Your task to perform on an android device: turn on showing notifications on the lock screen Image 0: 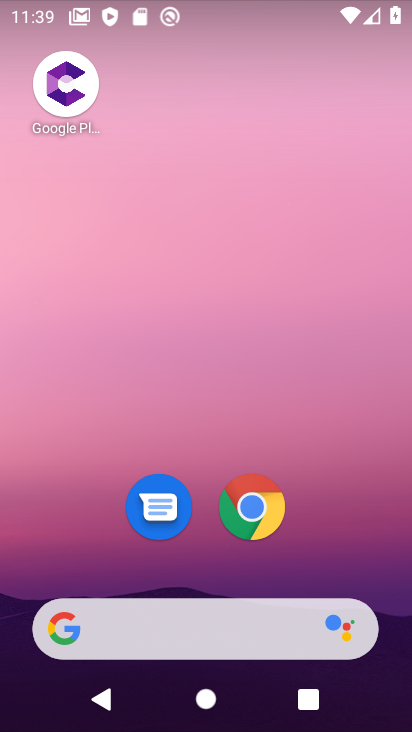
Step 0: drag from (323, 551) to (289, 25)
Your task to perform on an android device: turn on showing notifications on the lock screen Image 1: 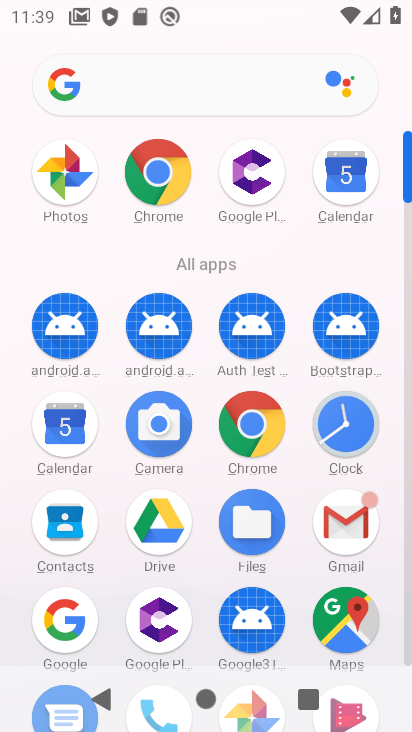
Step 1: drag from (200, 574) to (195, 240)
Your task to perform on an android device: turn on showing notifications on the lock screen Image 2: 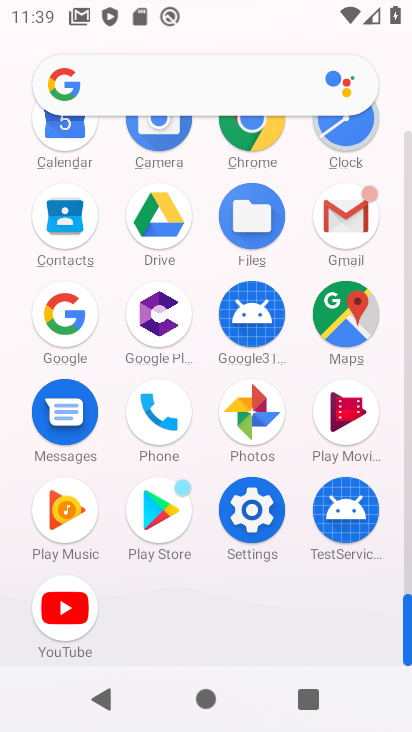
Step 2: click (249, 512)
Your task to perform on an android device: turn on showing notifications on the lock screen Image 3: 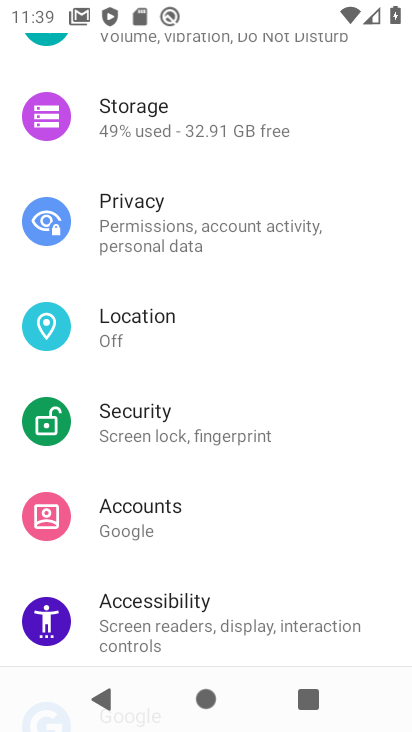
Step 3: drag from (228, 305) to (292, 708)
Your task to perform on an android device: turn on showing notifications on the lock screen Image 4: 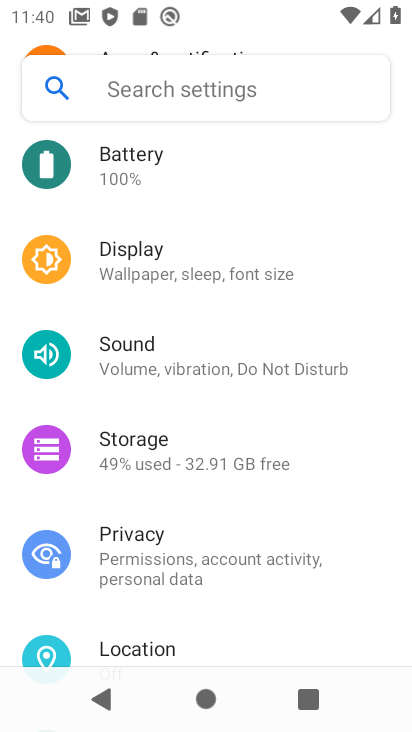
Step 4: drag from (174, 191) to (245, 724)
Your task to perform on an android device: turn on showing notifications on the lock screen Image 5: 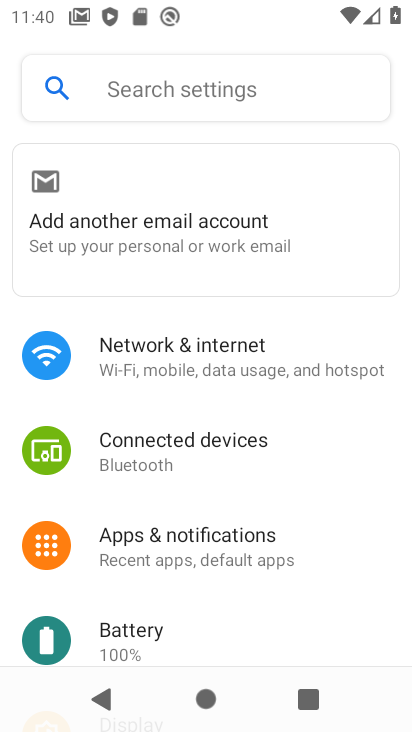
Step 5: click (195, 533)
Your task to perform on an android device: turn on showing notifications on the lock screen Image 6: 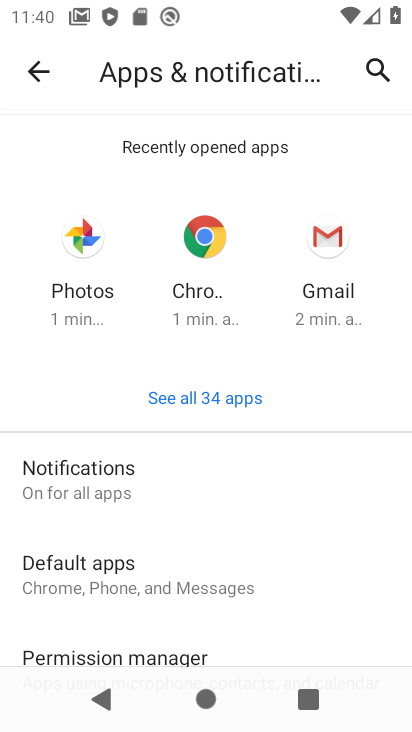
Step 6: drag from (208, 538) to (201, 321)
Your task to perform on an android device: turn on showing notifications on the lock screen Image 7: 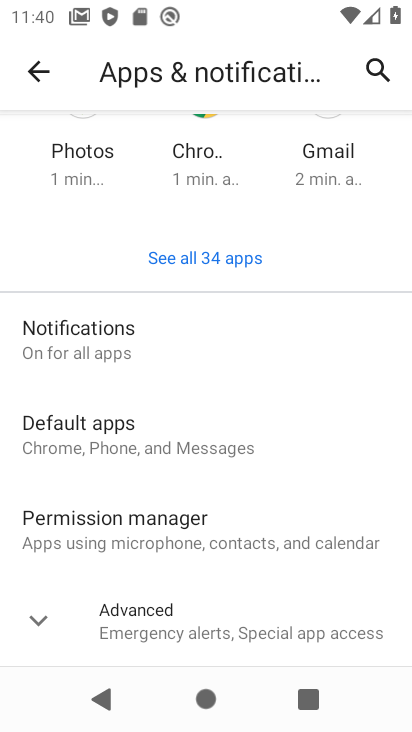
Step 7: click (66, 326)
Your task to perform on an android device: turn on showing notifications on the lock screen Image 8: 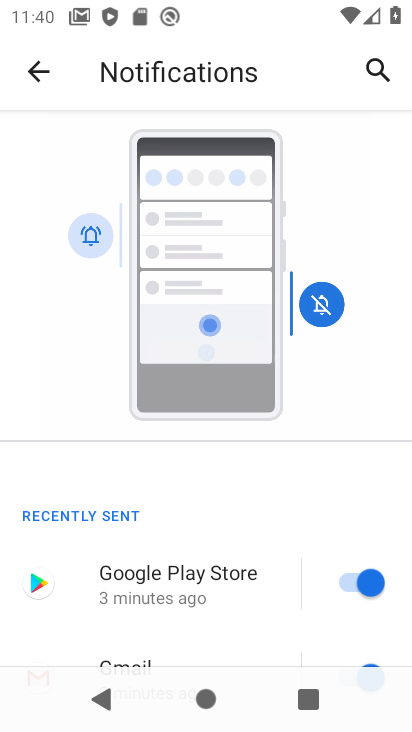
Step 8: drag from (241, 509) to (216, 159)
Your task to perform on an android device: turn on showing notifications on the lock screen Image 9: 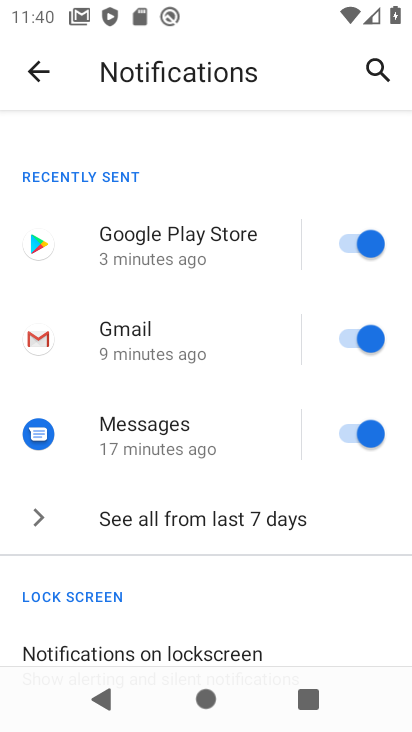
Step 9: drag from (205, 602) to (184, 236)
Your task to perform on an android device: turn on showing notifications on the lock screen Image 10: 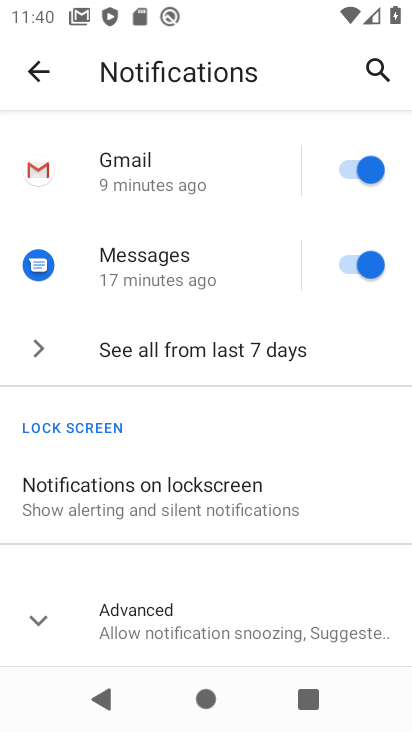
Step 10: click (140, 482)
Your task to perform on an android device: turn on showing notifications on the lock screen Image 11: 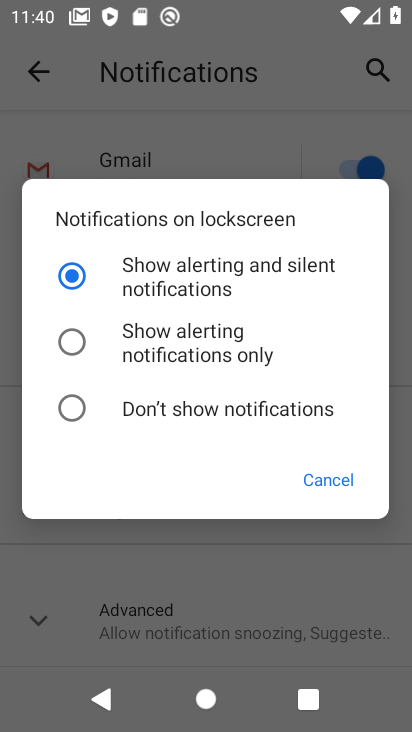
Step 11: task complete